Your task to perform on an android device: toggle wifi Image 0: 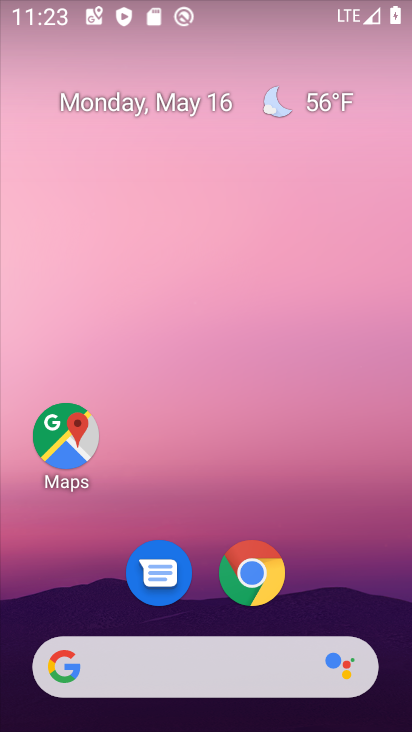
Step 0: drag from (251, 725) to (344, 160)
Your task to perform on an android device: toggle wifi Image 1: 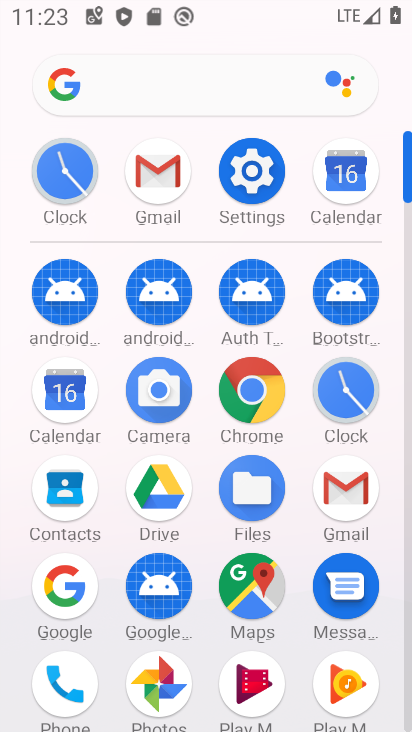
Step 1: click (274, 169)
Your task to perform on an android device: toggle wifi Image 2: 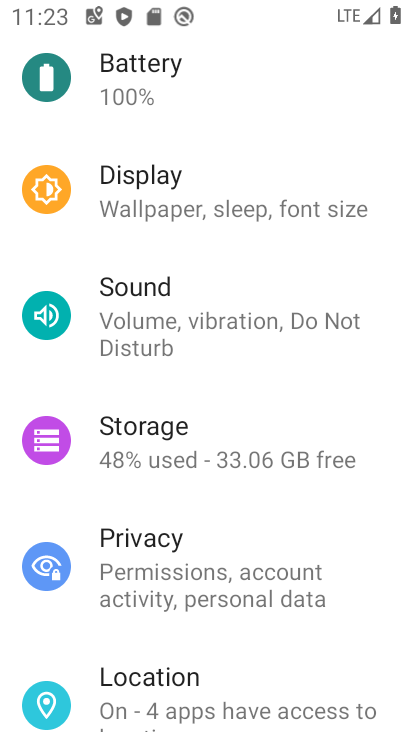
Step 2: drag from (223, 152) to (239, 476)
Your task to perform on an android device: toggle wifi Image 3: 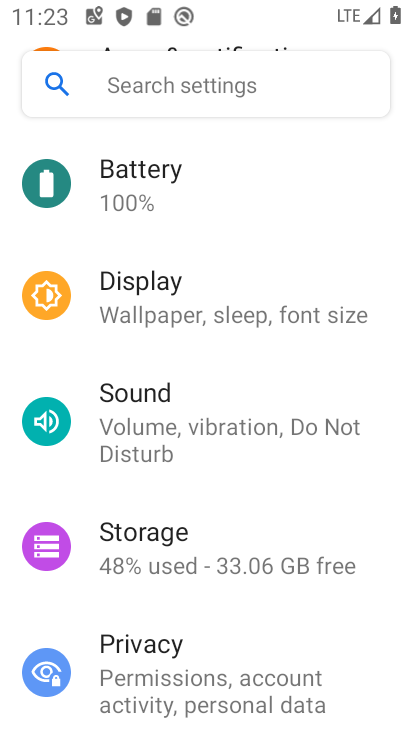
Step 3: drag from (234, 162) to (231, 548)
Your task to perform on an android device: toggle wifi Image 4: 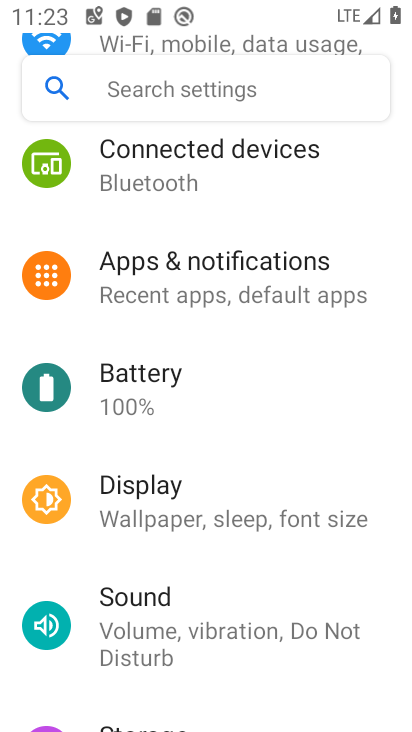
Step 4: drag from (278, 356) to (270, 613)
Your task to perform on an android device: toggle wifi Image 5: 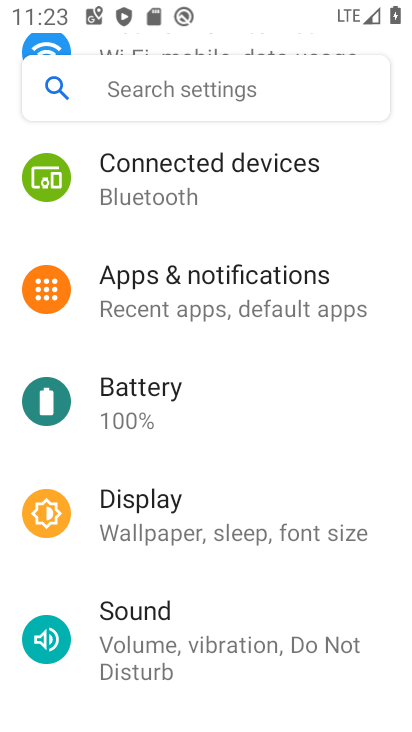
Step 5: drag from (333, 173) to (282, 623)
Your task to perform on an android device: toggle wifi Image 6: 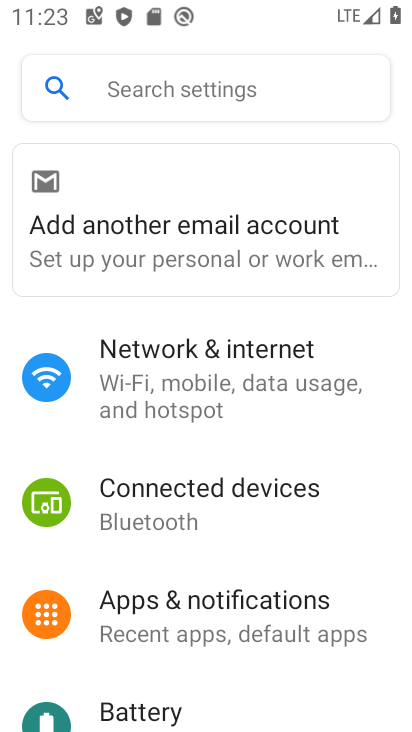
Step 6: click (212, 378)
Your task to perform on an android device: toggle wifi Image 7: 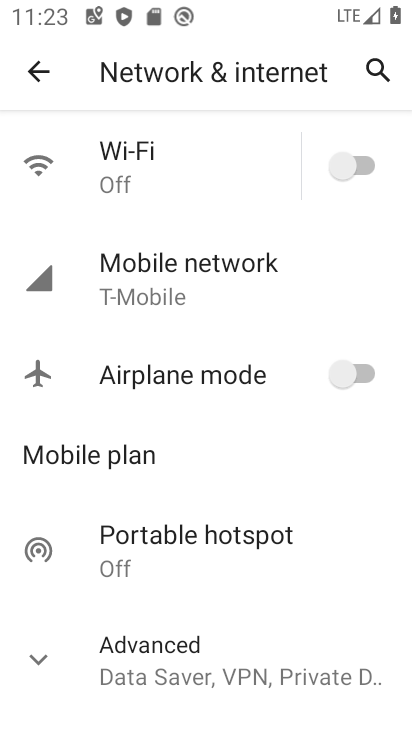
Step 7: task complete